Your task to perform on an android device: open chrome privacy settings Image 0: 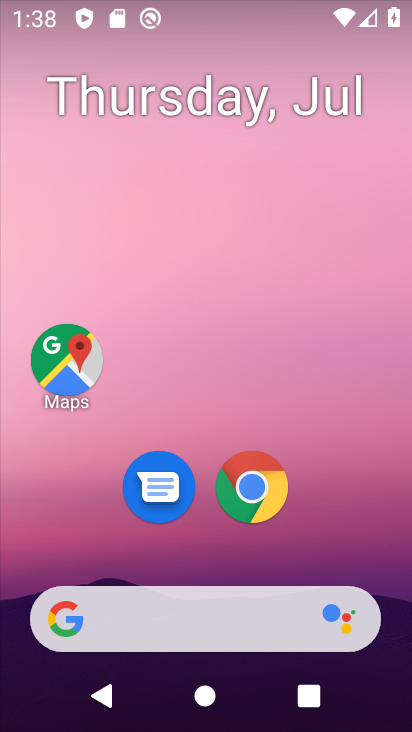
Step 0: drag from (380, 516) to (367, 110)
Your task to perform on an android device: open chrome privacy settings Image 1: 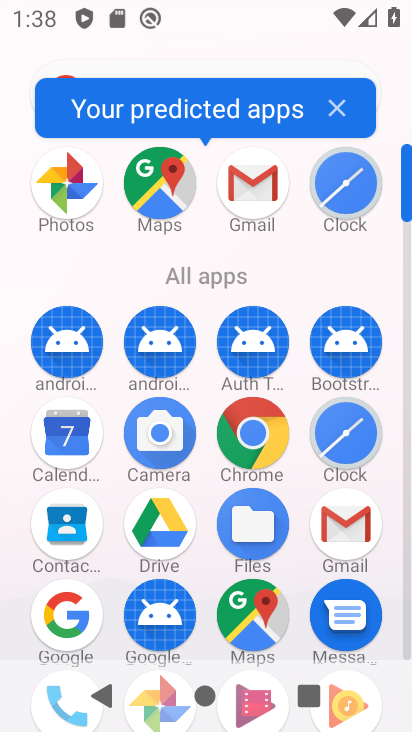
Step 1: click (273, 427)
Your task to perform on an android device: open chrome privacy settings Image 2: 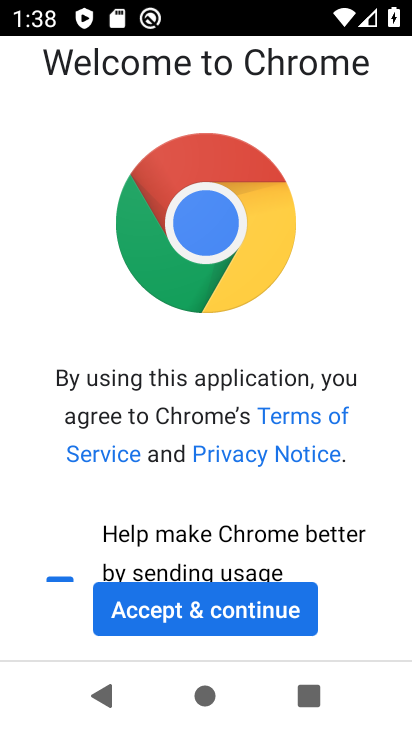
Step 2: click (200, 606)
Your task to perform on an android device: open chrome privacy settings Image 3: 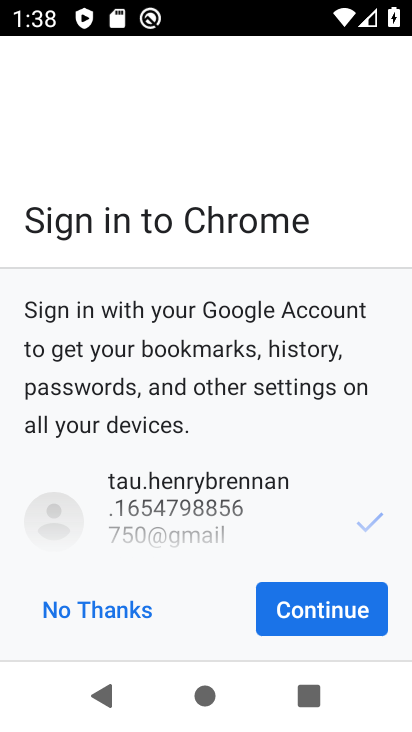
Step 3: click (292, 610)
Your task to perform on an android device: open chrome privacy settings Image 4: 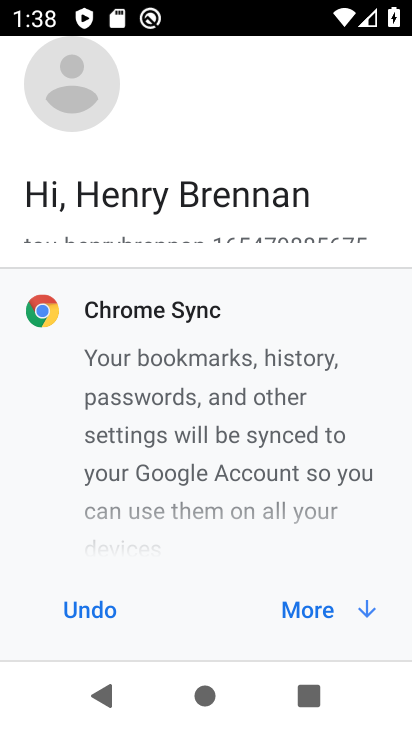
Step 4: click (308, 608)
Your task to perform on an android device: open chrome privacy settings Image 5: 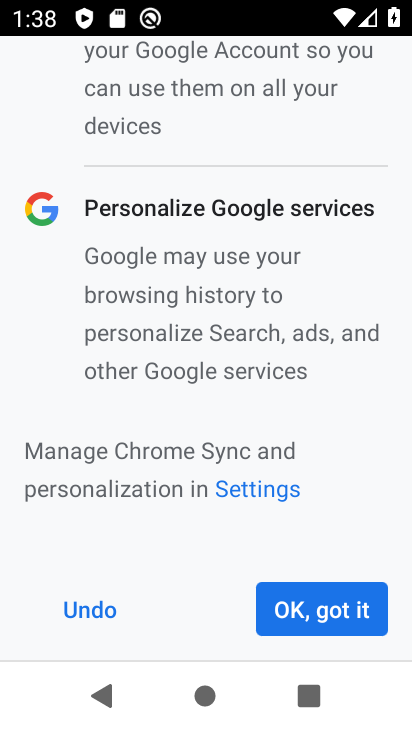
Step 5: click (308, 608)
Your task to perform on an android device: open chrome privacy settings Image 6: 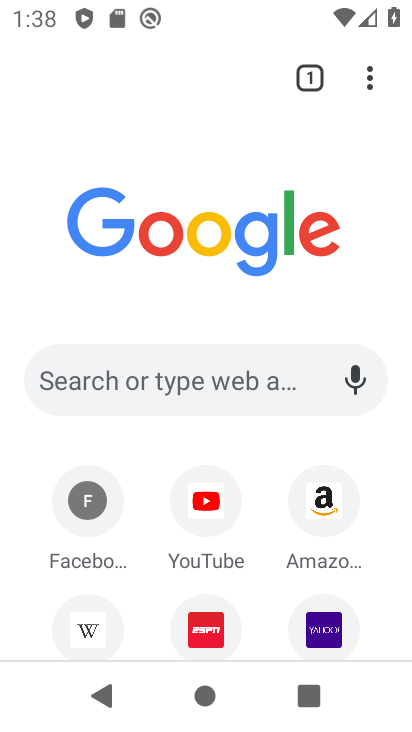
Step 6: click (367, 81)
Your task to perform on an android device: open chrome privacy settings Image 7: 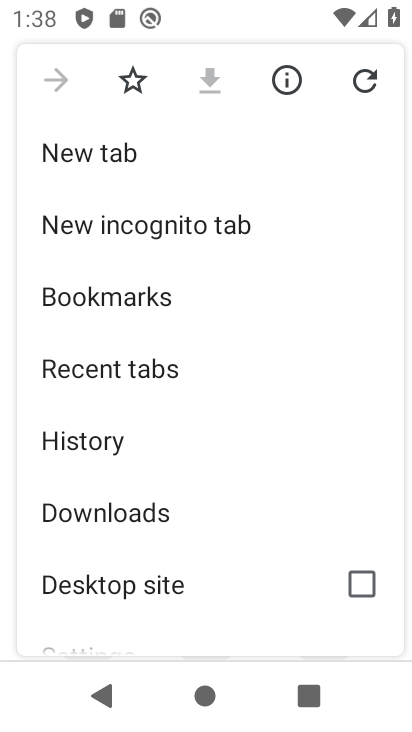
Step 7: drag from (311, 420) to (321, 285)
Your task to perform on an android device: open chrome privacy settings Image 8: 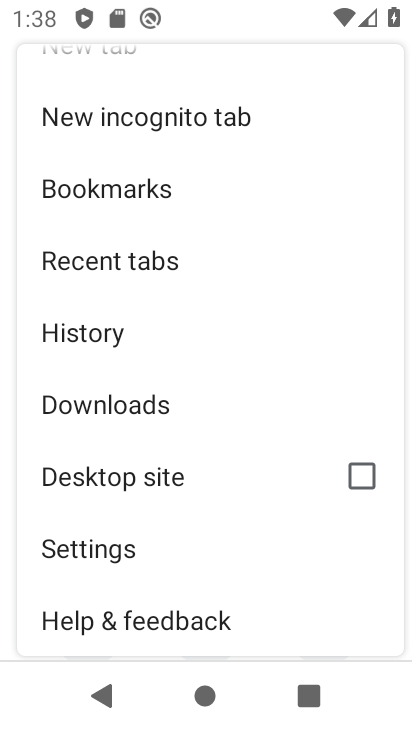
Step 8: drag from (305, 479) to (308, 322)
Your task to perform on an android device: open chrome privacy settings Image 9: 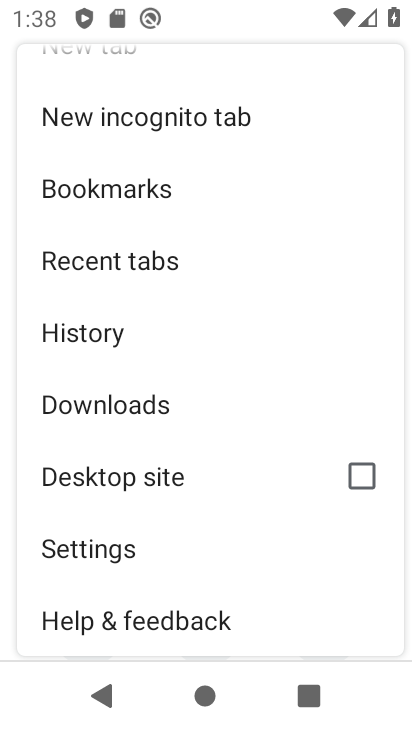
Step 9: click (169, 561)
Your task to perform on an android device: open chrome privacy settings Image 10: 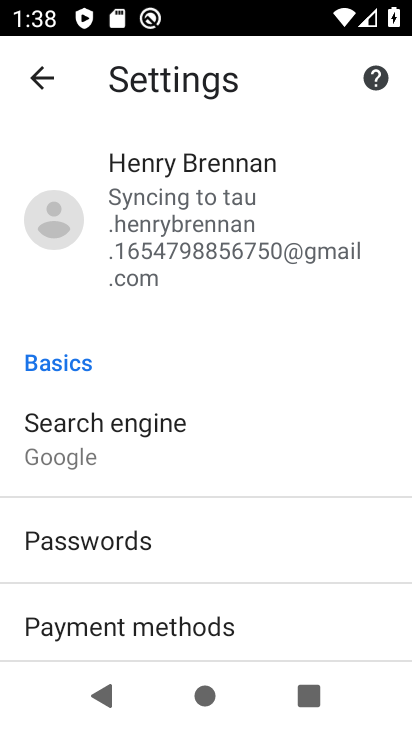
Step 10: drag from (292, 544) to (298, 422)
Your task to perform on an android device: open chrome privacy settings Image 11: 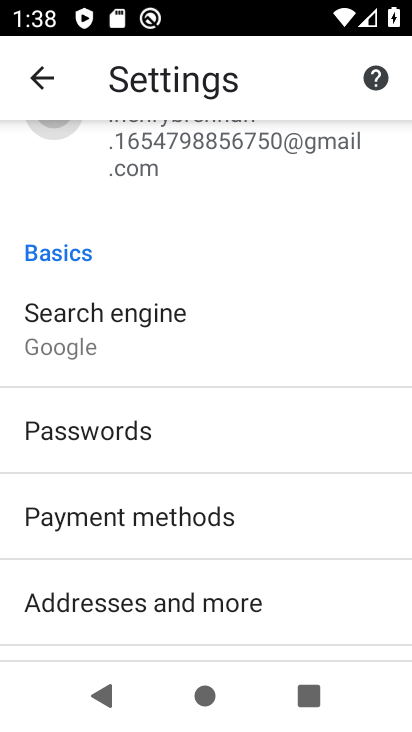
Step 11: drag from (304, 535) to (307, 409)
Your task to perform on an android device: open chrome privacy settings Image 12: 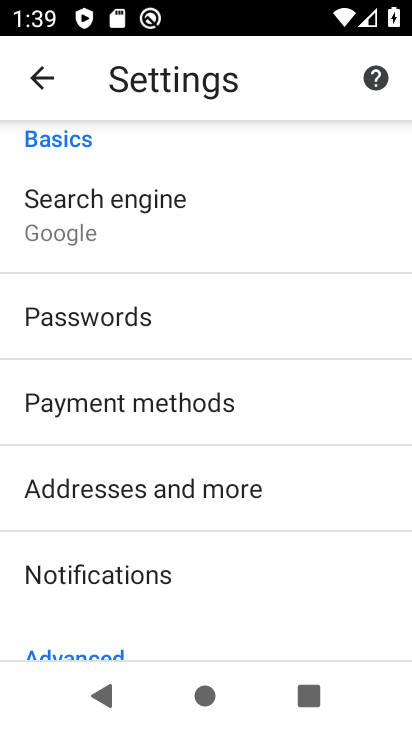
Step 12: drag from (321, 565) to (335, 382)
Your task to perform on an android device: open chrome privacy settings Image 13: 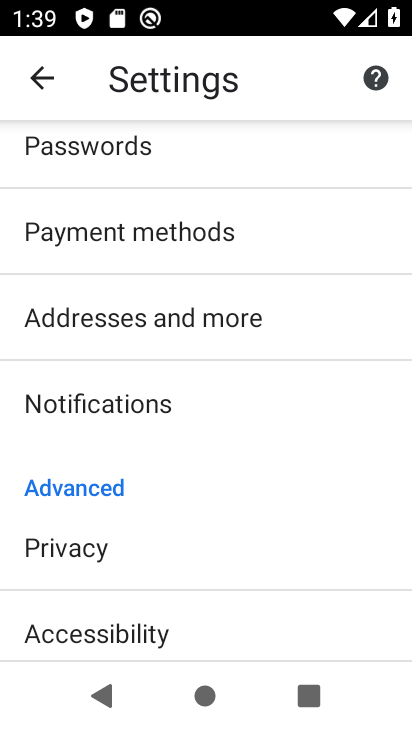
Step 13: drag from (284, 546) to (284, 351)
Your task to perform on an android device: open chrome privacy settings Image 14: 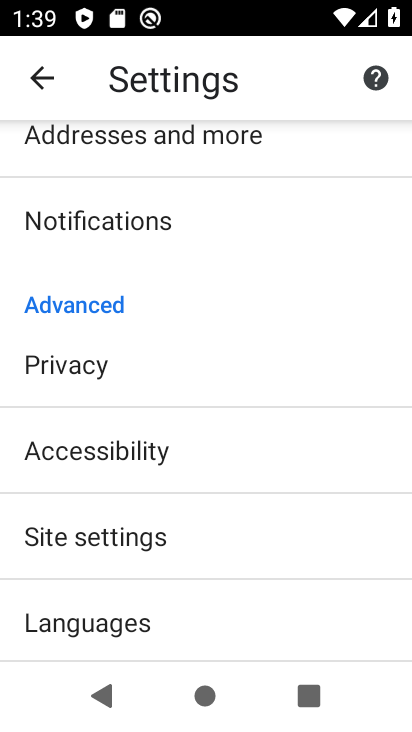
Step 14: click (231, 381)
Your task to perform on an android device: open chrome privacy settings Image 15: 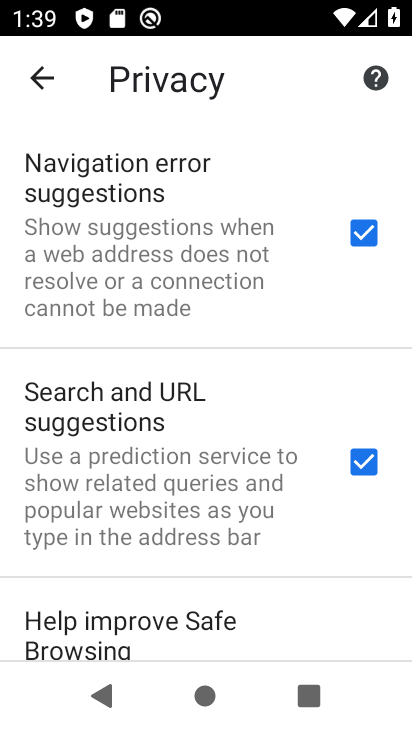
Step 15: task complete